Your task to perform on an android device: open chrome privacy settings Image 0: 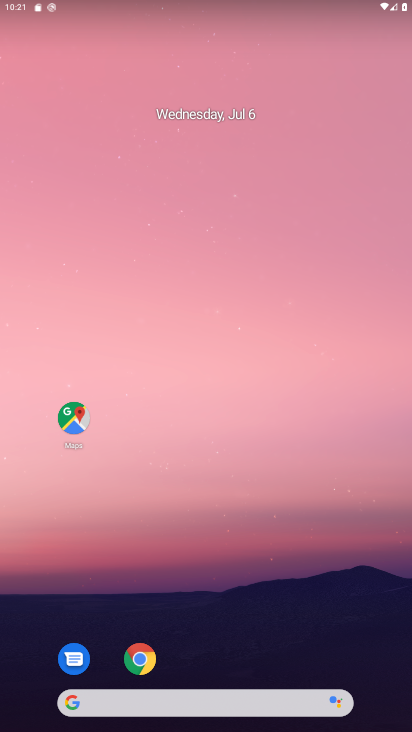
Step 0: click (142, 665)
Your task to perform on an android device: open chrome privacy settings Image 1: 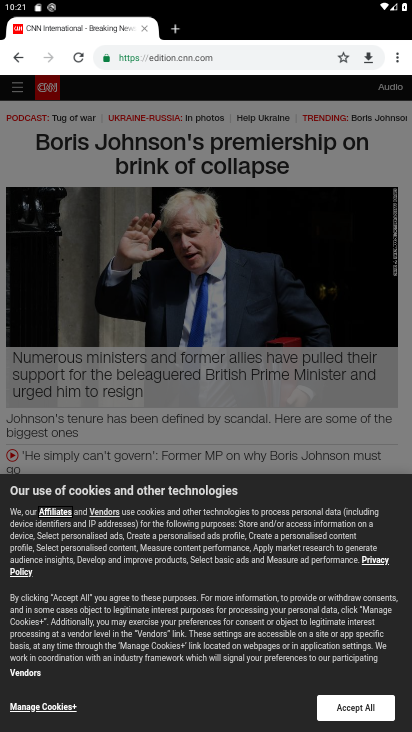
Step 1: click (399, 55)
Your task to perform on an android device: open chrome privacy settings Image 2: 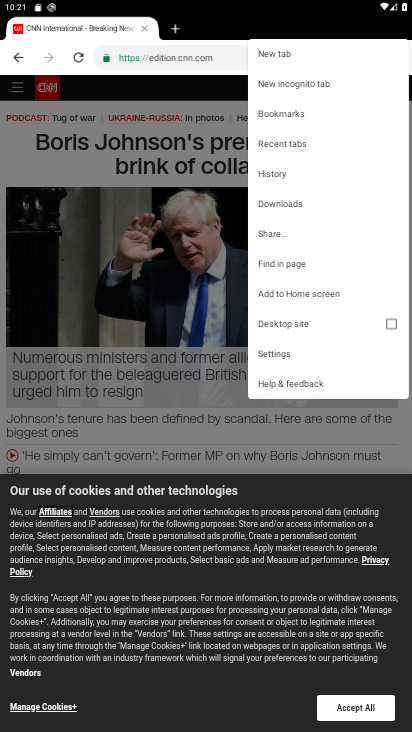
Step 2: click (277, 346)
Your task to perform on an android device: open chrome privacy settings Image 3: 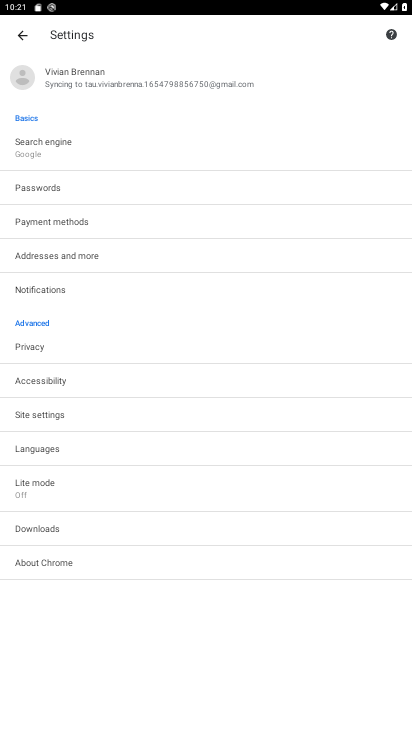
Step 3: click (29, 347)
Your task to perform on an android device: open chrome privacy settings Image 4: 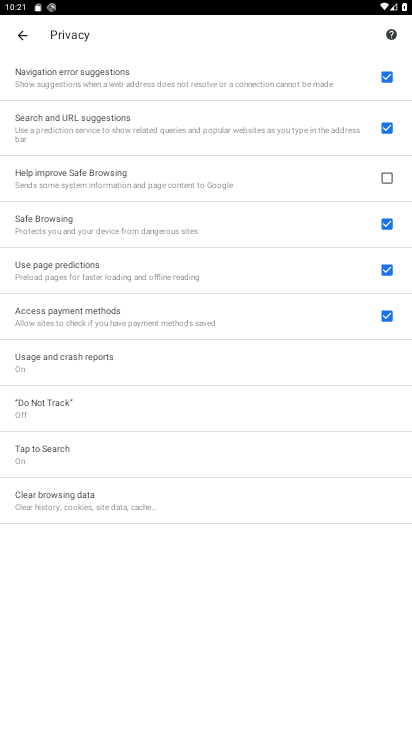
Step 4: task complete